Your task to perform on an android device: Go to privacy settings Image 0: 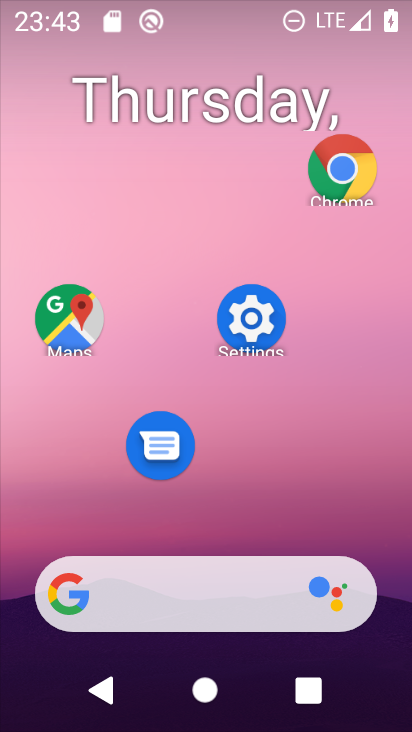
Step 0: click (257, 70)
Your task to perform on an android device: Go to privacy settings Image 1: 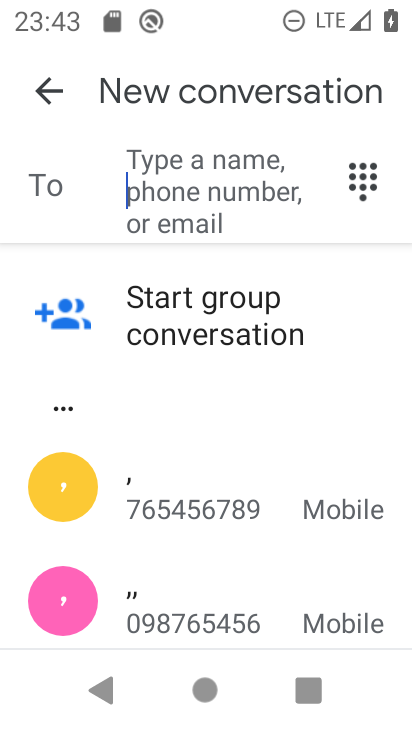
Step 1: press home button
Your task to perform on an android device: Go to privacy settings Image 2: 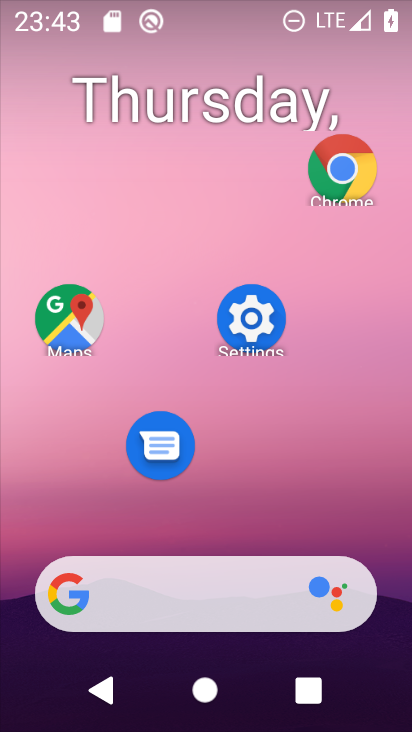
Step 2: click (249, 320)
Your task to perform on an android device: Go to privacy settings Image 3: 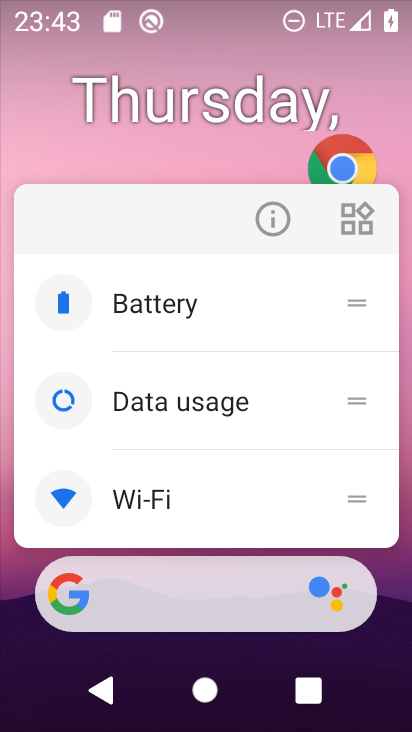
Step 3: click (284, 221)
Your task to perform on an android device: Go to privacy settings Image 4: 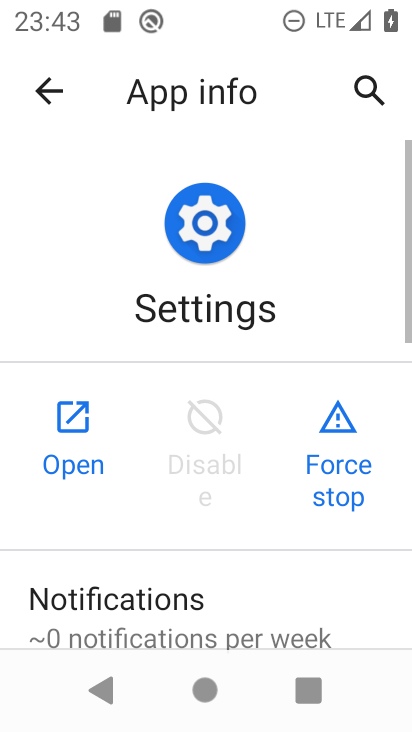
Step 4: click (81, 442)
Your task to perform on an android device: Go to privacy settings Image 5: 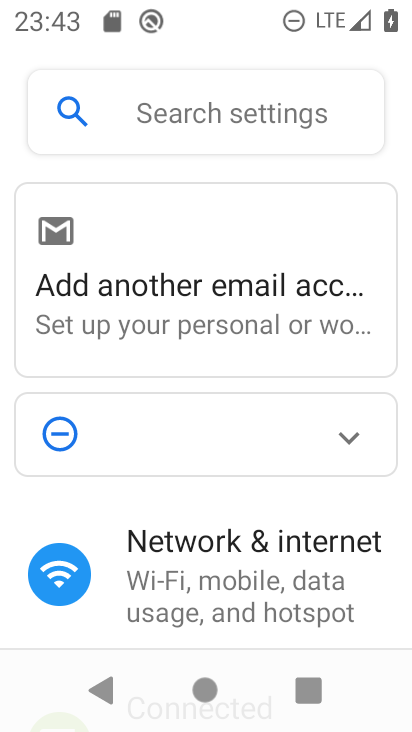
Step 5: drag from (249, 405) to (367, 4)
Your task to perform on an android device: Go to privacy settings Image 6: 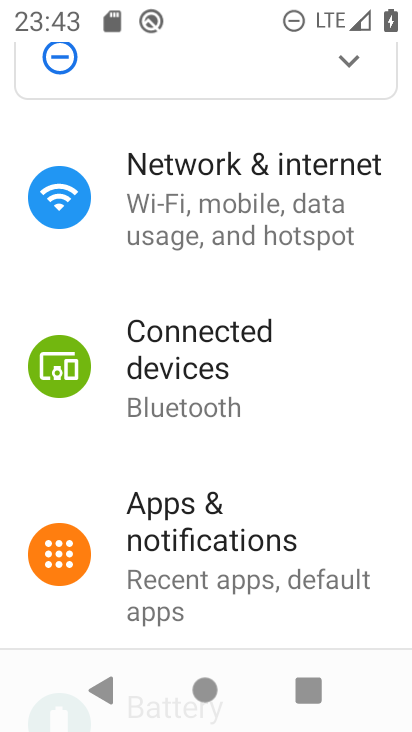
Step 6: drag from (223, 566) to (300, 92)
Your task to perform on an android device: Go to privacy settings Image 7: 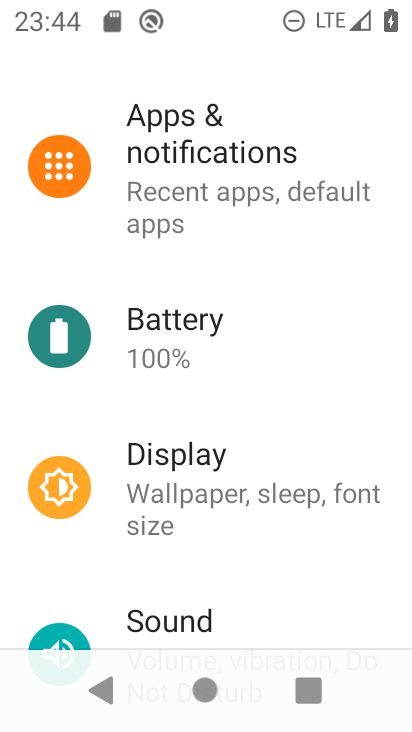
Step 7: click (202, 341)
Your task to perform on an android device: Go to privacy settings Image 8: 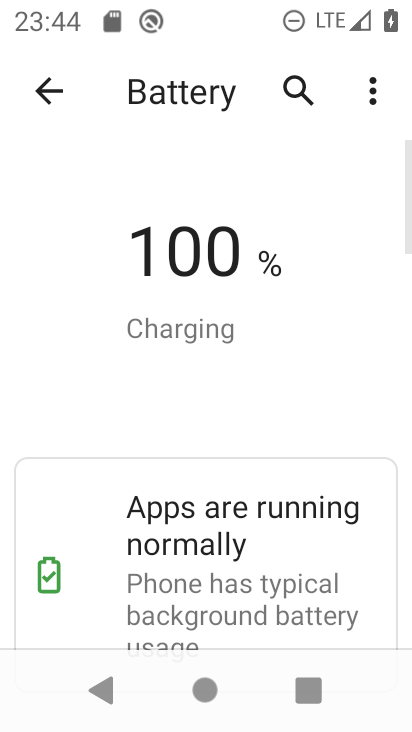
Step 8: drag from (280, 558) to (313, 198)
Your task to perform on an android device: Go to privacy settings Image 9: 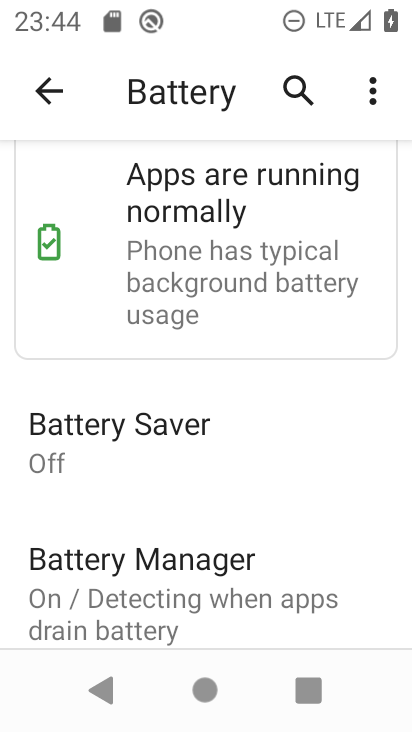
Step 9: drag from (245, 523) to (267, 181)
Your task to perform on an android device: Go to privacy settings Image 10: 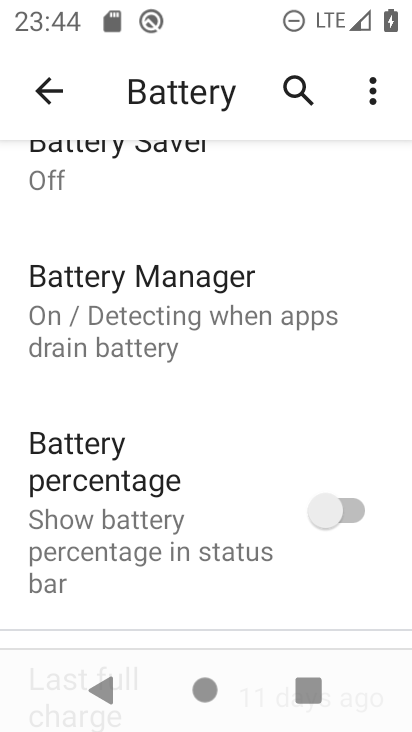
Step 10: drag from (196, 517) to (209, 222)
Your task to perform on an android device: Go to privacy settings Image 11: 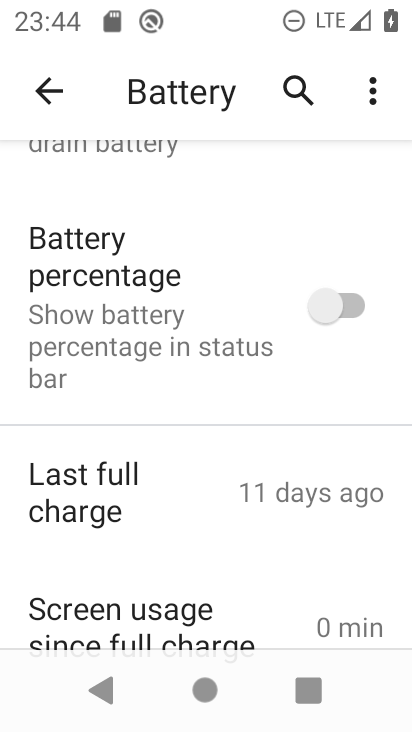
Step 11: drag from (187, 213) to (241, 705)
Your task to perform on an android device: Go to privacy settings Image 12: 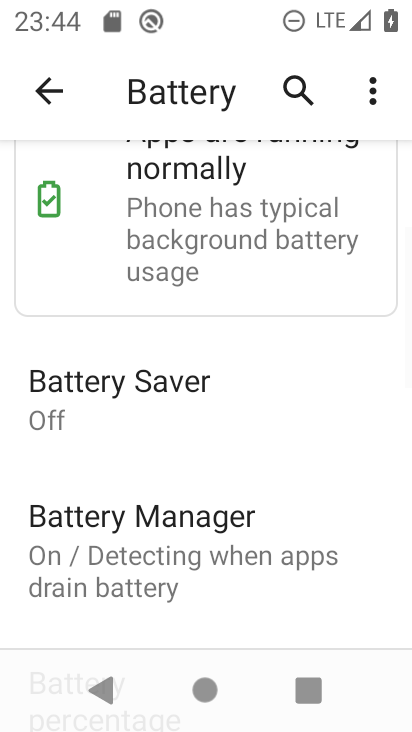
Step 12: click (48, 75)
Your task to perform on an android device: Go to privacy settings Image 13: 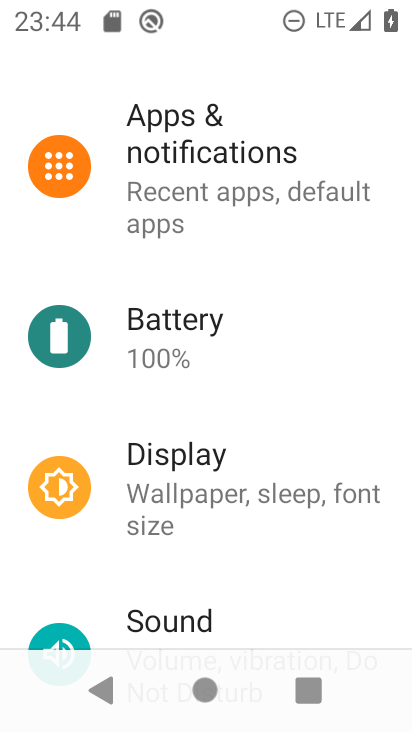
Step 13: drag from (212, 421) to (237, 8)
Your task to perform on an android device: Go to privacy settings Image 14: 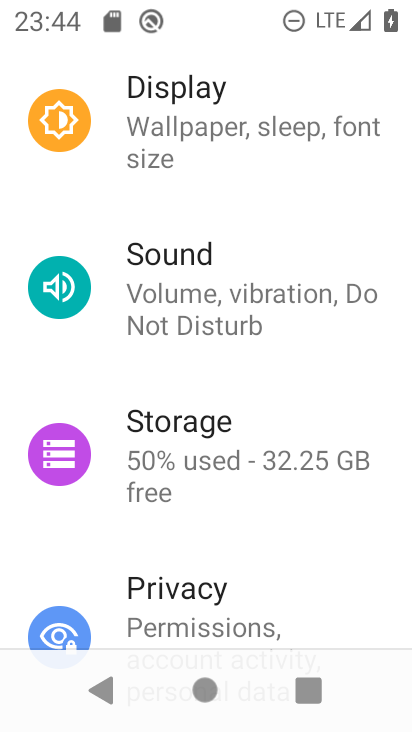
Step 14: click (175, 587)
Your task to perform on an android device: Go to privacy settings Image 15: 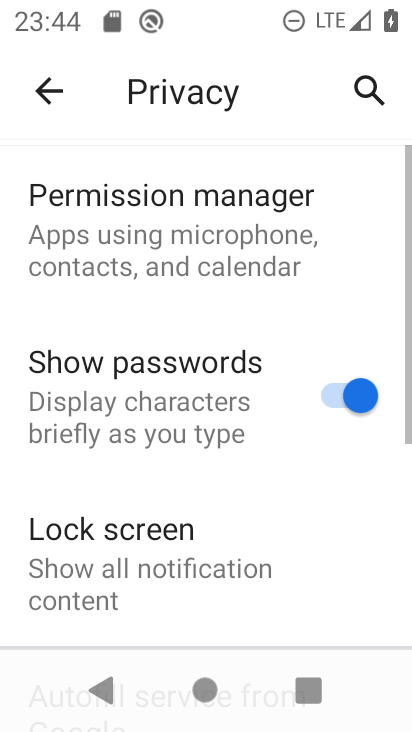
Step 15: task complete